Your task to perform on an android device: Open calendar and show me the fourth week of next month Image 0: 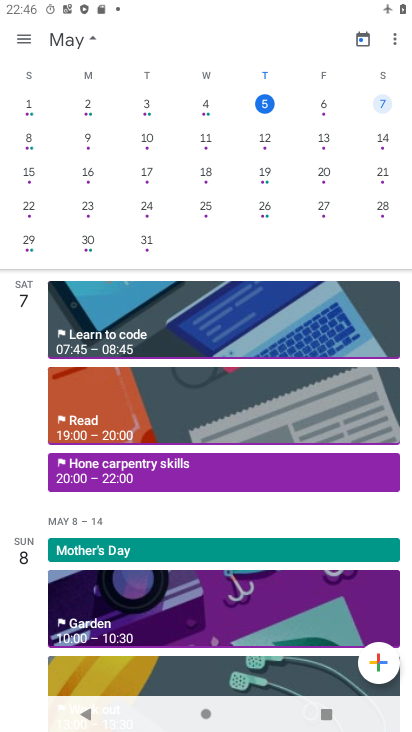
Step 0: press home button
Your task to perform on an android device: Open calendar and show me the fourth week of next month Image 1: 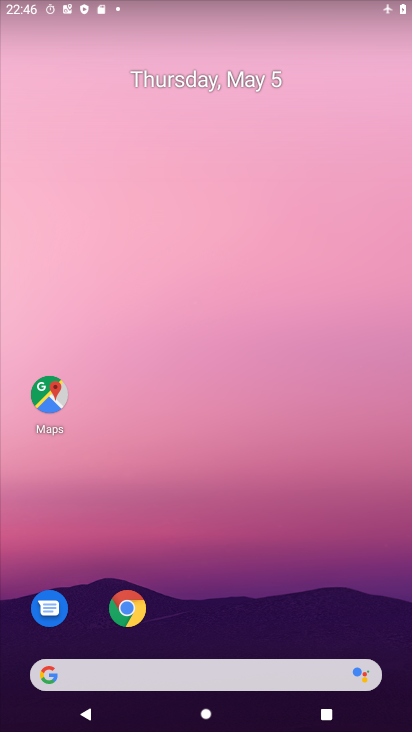
Step 1: drag from (336, 655) to (273, 97)
Your task to perform on an android device: Open calendar and show me the fourth week of next month Image 2: 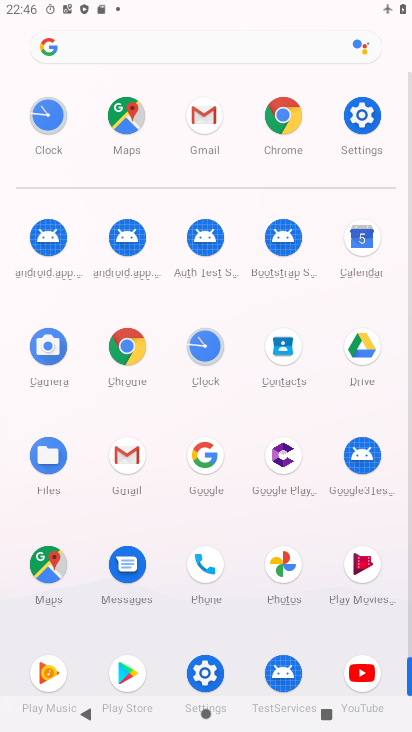
Step 2: click (372, 250)
Your task to perform on an android device: Open calendar and show me the fourth week of next month Image 3: 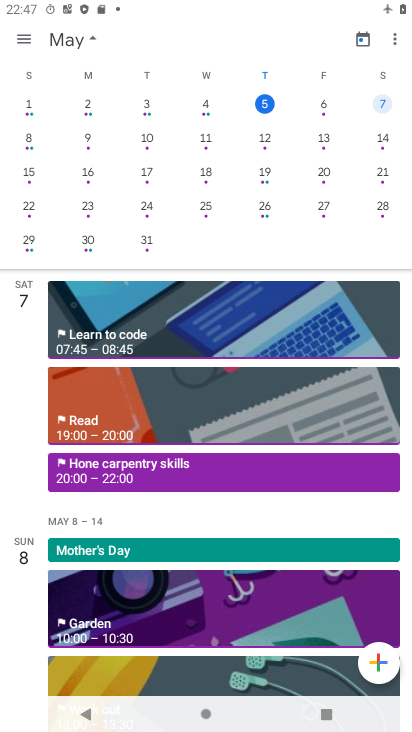
Step 3: click (268, 211)
Your task to perform on an android device: Open calendar and show me the fourth week of next month Image 4: 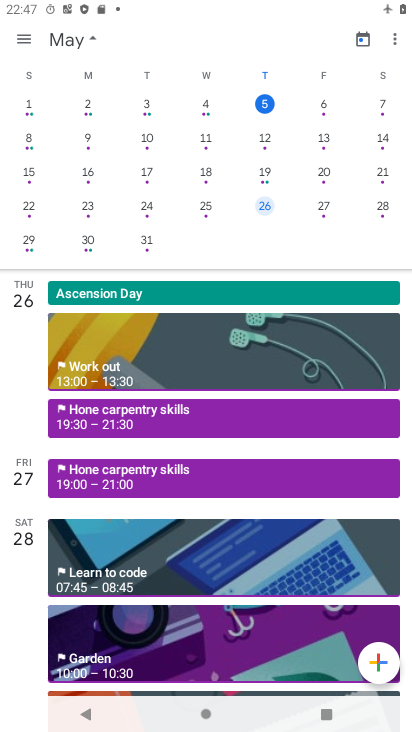
Step 4: task complete